Your task to perform on an android device: turn on the 12-hour format for clock Image 0: 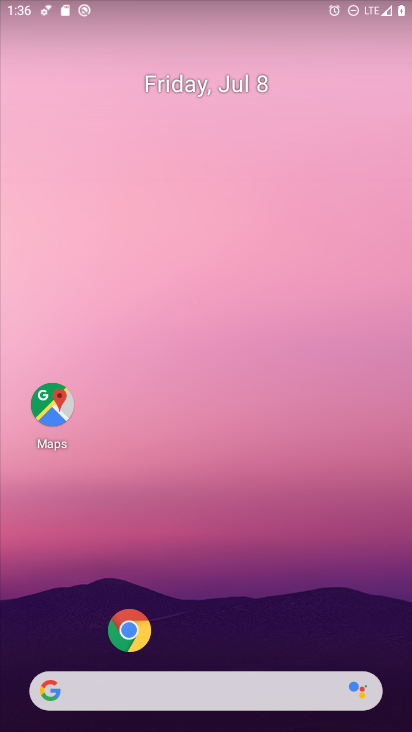
Step 0: drag from (346, 688) to (367, 71)
Your task to perform on an android device: turn on the 12-hour format for clock Image 1: 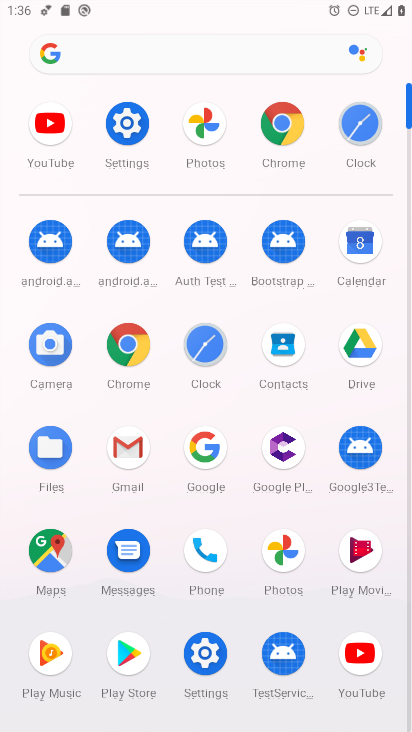
Step 1: click (199, 338)
Your task to perform on an android device: turn on the 12-hour format for clock Image 2: 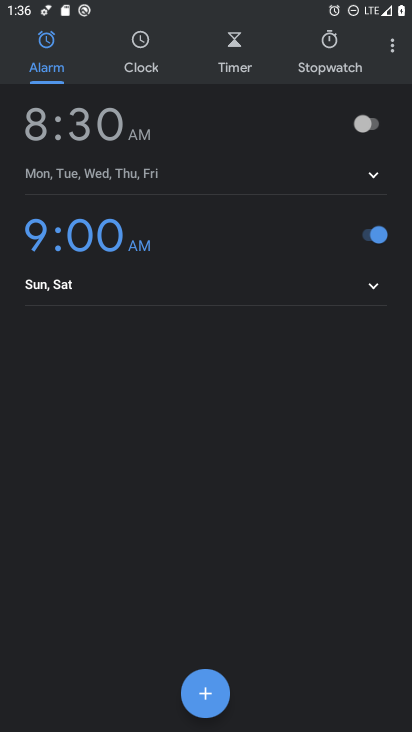
Step 2: click (393, 48)
Your task to perform on an android device: turn on the 12-hour format for clock Image 3: 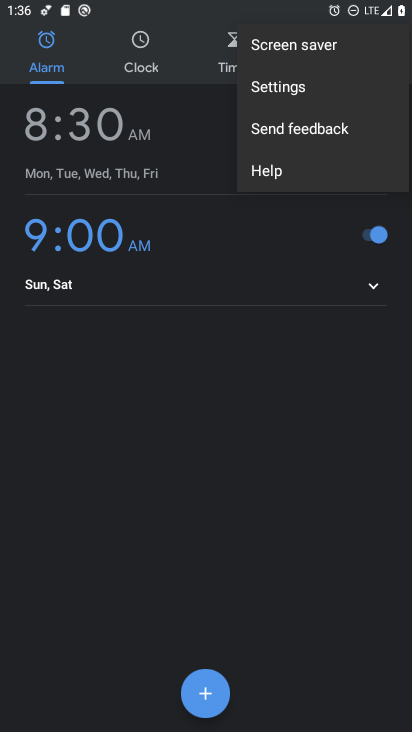
Step 3: click (337, 84)
Your task to perform on an android device: turn on the 12-hour format for clock Image 4: 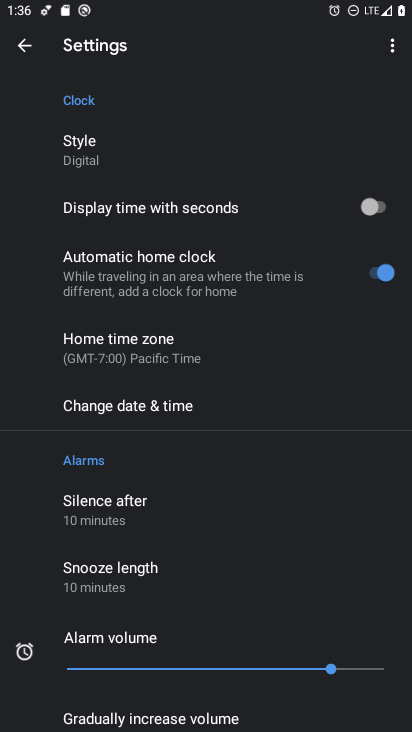
Step 4: click (188, 412)
Your task to perform on an android device: turn on the 12-hour format for clock Image 5: 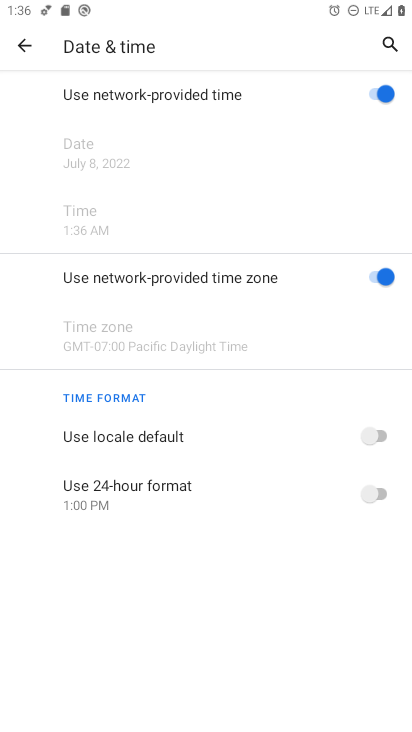
Step 5: task complete